Your task to perform on an android device: clear history in the chrome app Image 0: 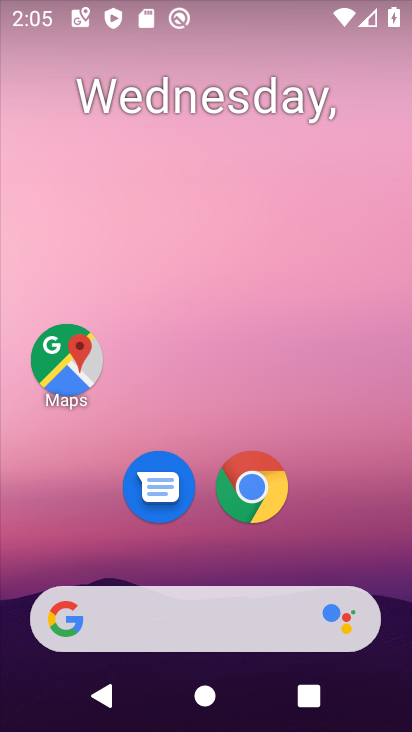
Step 0: click (227, 487)
Your task to perform on an android device: clear history in the chrome app Image 1: 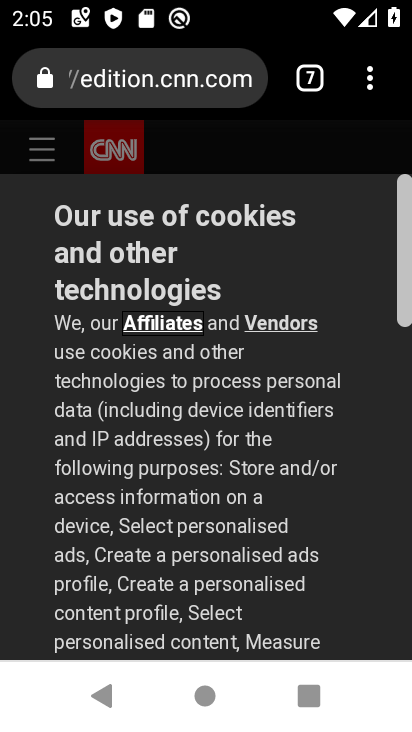
Step 1: click (365, 77)
Your task to perform on an android device: clear history in the chrome app Image 2: 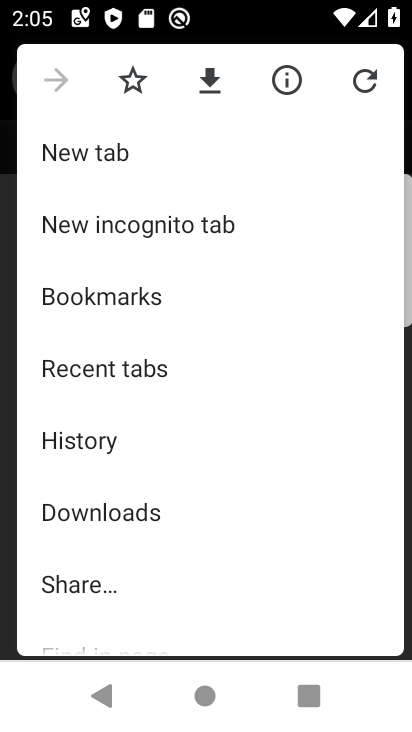
Step 2: drag from (180, 406) to (90, 185)
Your task to perform on an android device: clear history in the chrome app Image 3: 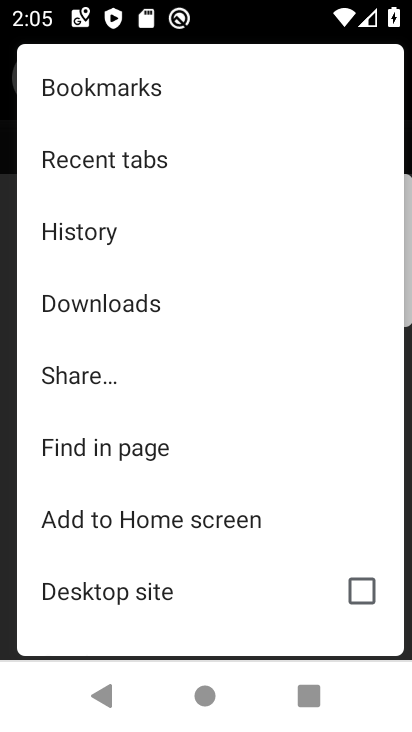
Step 3: drag from (198, 544) to (136, 319)
Your task to perform on an android device: clear history in the chrome app Image 4: 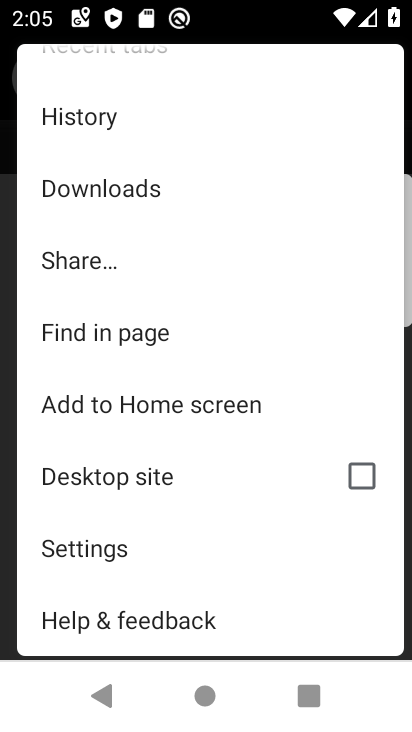
Step 4: click (76, 111)
Your task to perform on an android device: clear history in the chrome app Image 5: 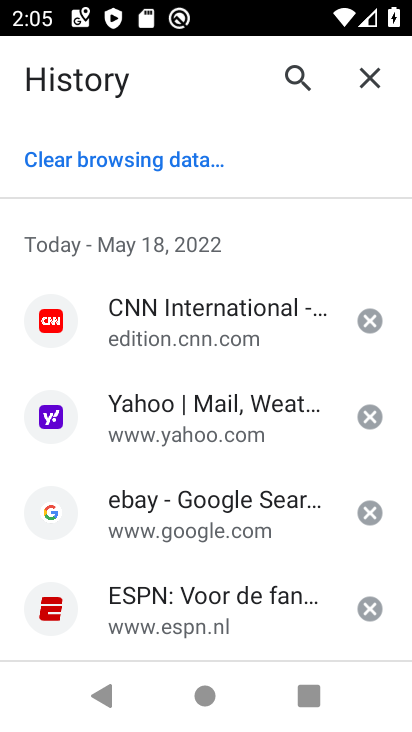
Step 5: click (138, 157)
Your task to perform on an android device: clear history in the chrome app Image 6: 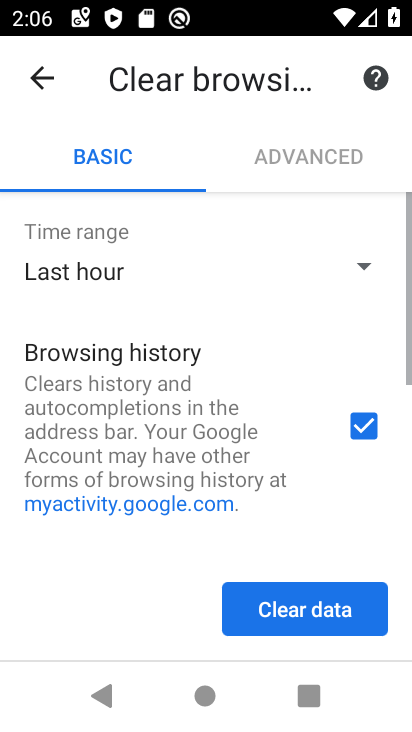
Step 6: click (312, 625)
Your task to perform on an android device: clear history in the chrome app Image 7: 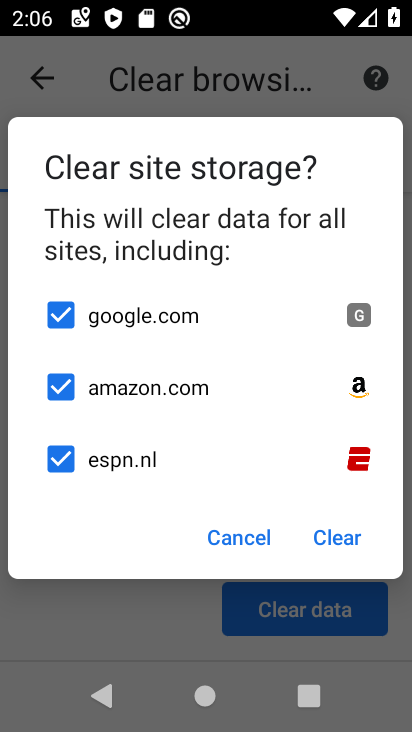
Step 7: click (340, 534)
Your task to perform on an android device: clear history in the chrome app Image 8: 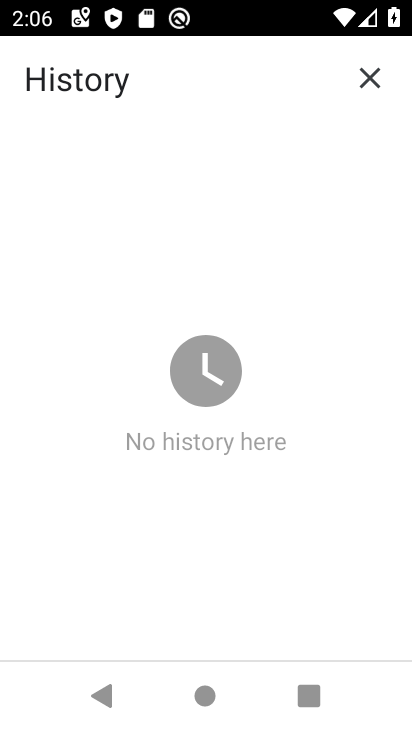
Step 8: task complete